Your task to perform on an android device: Open a new Chrome incognito tab Image 0: 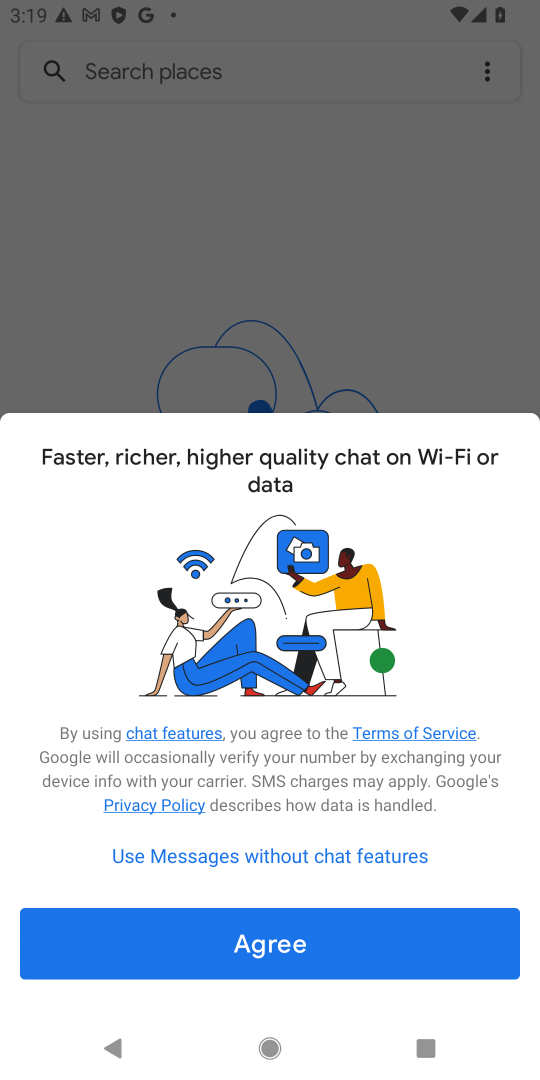
Step 0: press home button
Your task to perform on an android device: Open a new Chrome incognito tab Image 1: 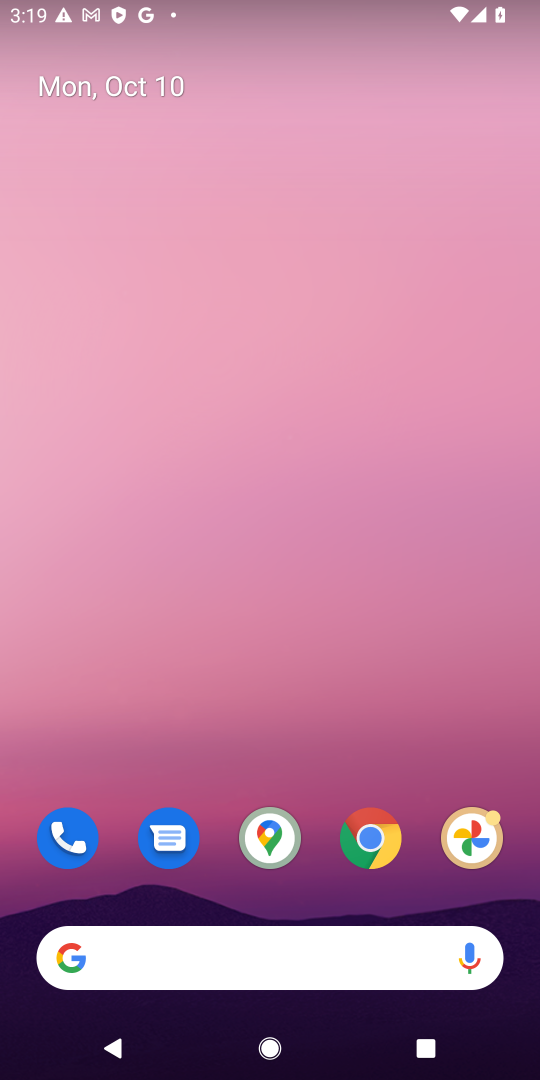
Step 1: click (371, 843)
Your task to perform on an android device: Open a new Chrome incognito tab Image 2: 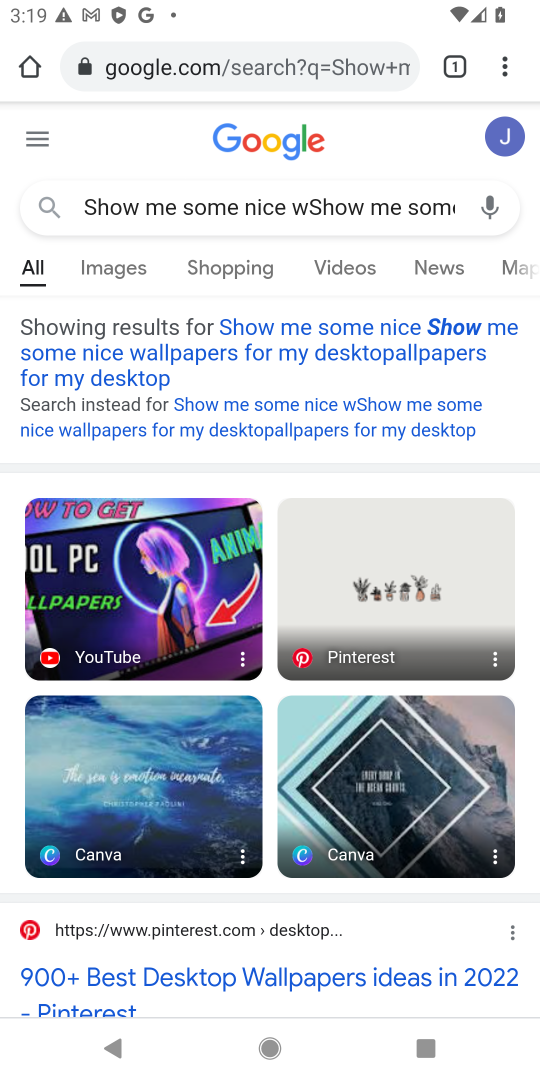
Step 2: click (506, 57)
Your task to perform on an android device: Open a new Chrome incognito tab Image 3: 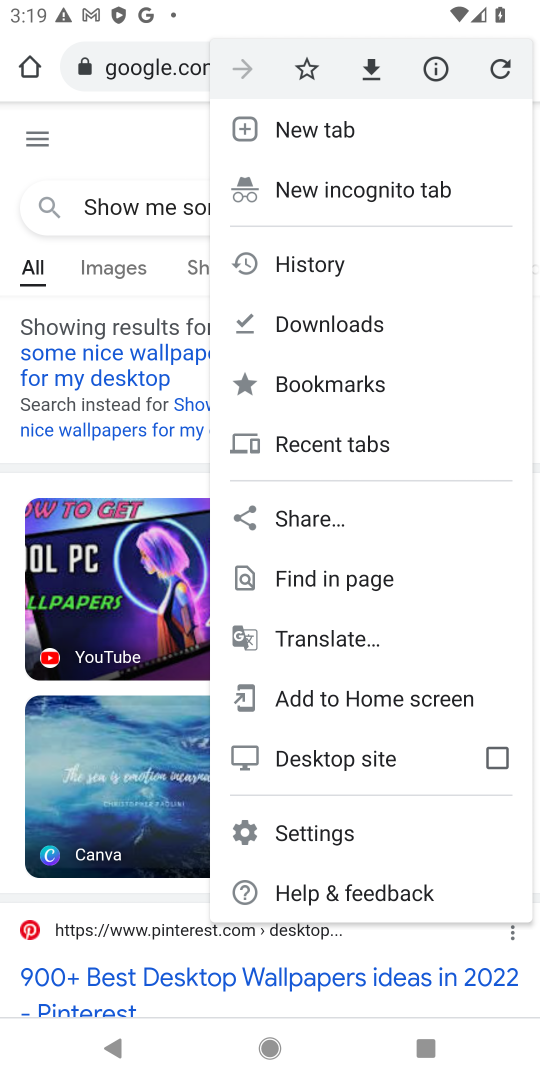
Step 3: click (431, 189)
Your task to perform on an android device: Open a new Chrome incognito tab Image 4: 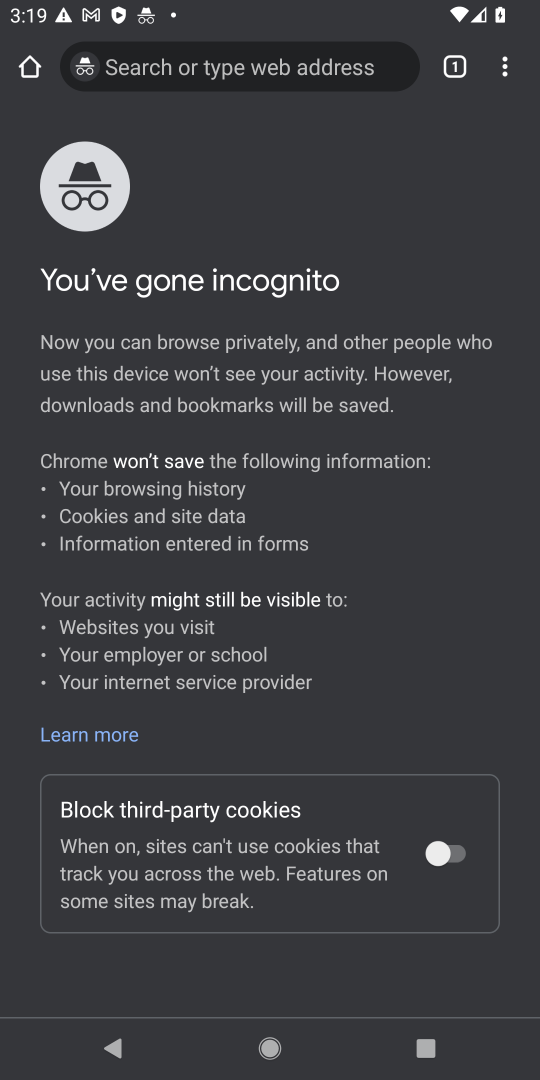
Step 4: task complete